Your task to perform on an android device: Open network settings Image 0: 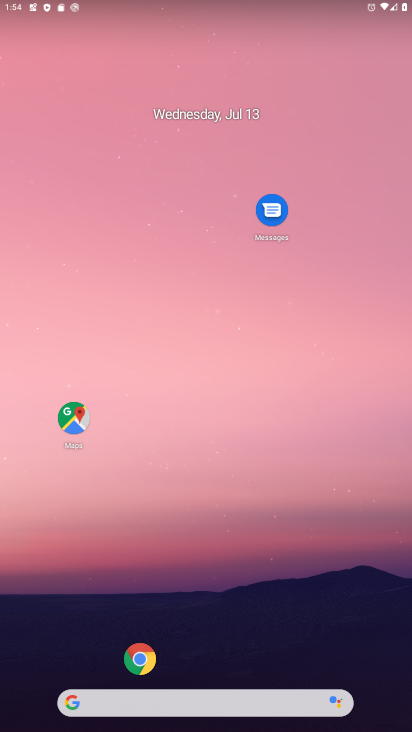
Step 0: drag from (34, 688) to (245, 24)
Your task to perform on an android device: Open network settings Image 1: 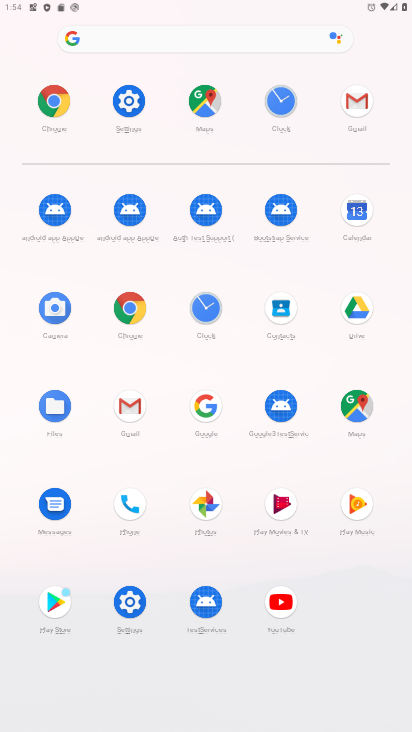
Step 1: click (120, 619)
Your task to perform on an android device: Open network settings Image 2: 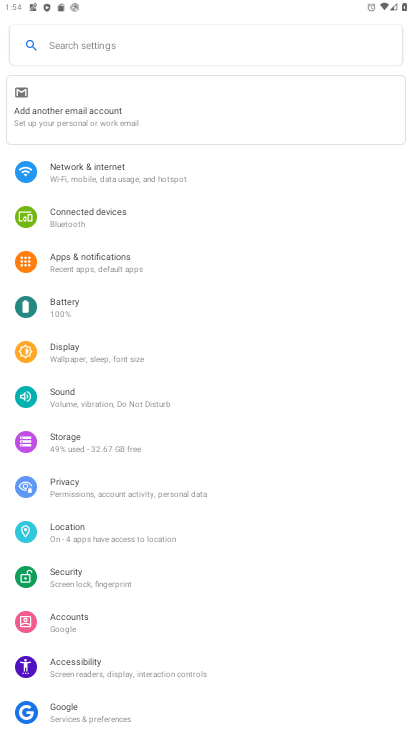
Step 2: click (107, 162)
Your task to perform on an android device: Open network settings Image 3: 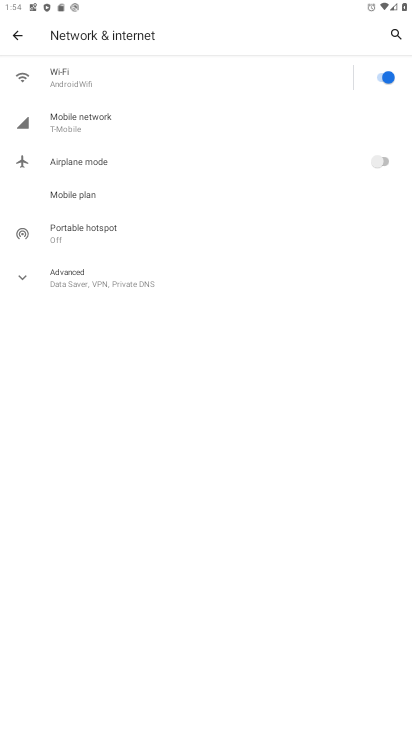
Step 3: task complete